Your task to perform on an android device: Open Amazon Image 0: 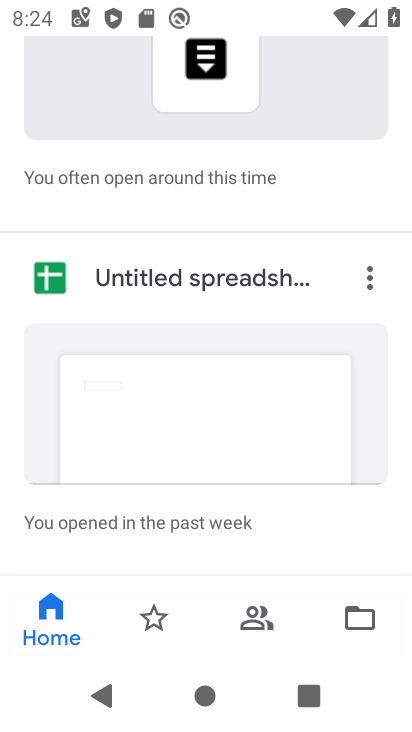
Step 0: press home button
Your task to perform on an android device: Open Amazon Image 1: 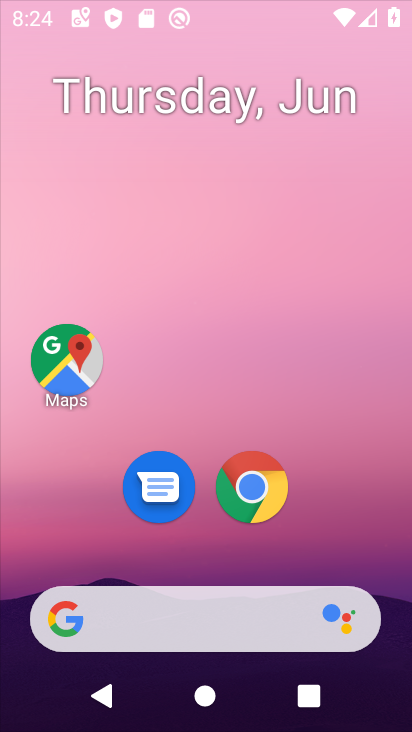
Step 1: drag from (280, 583) to (279, 88)
Your task to perform on an android device: Open Amazon Image 2: 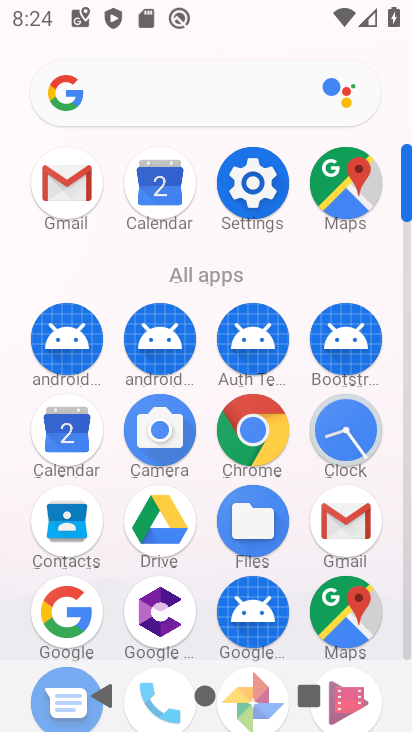
Step 2: click (252, 424)
Your task to perform on an android device: Open Amazon Image 3: 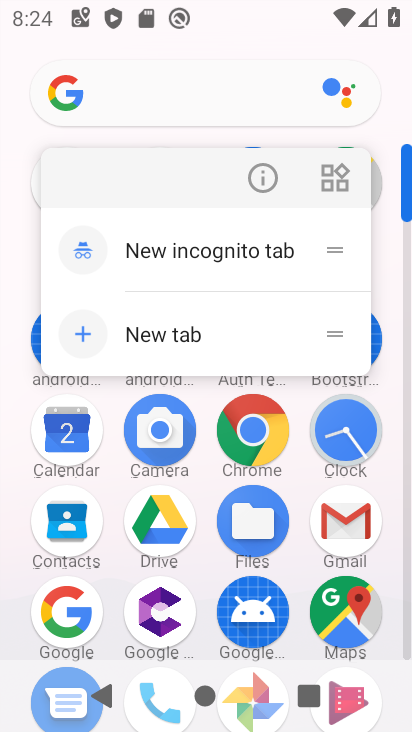
Step 3: click (252, 191)
Your task to perform on an android device: Open Amazon Image 4: 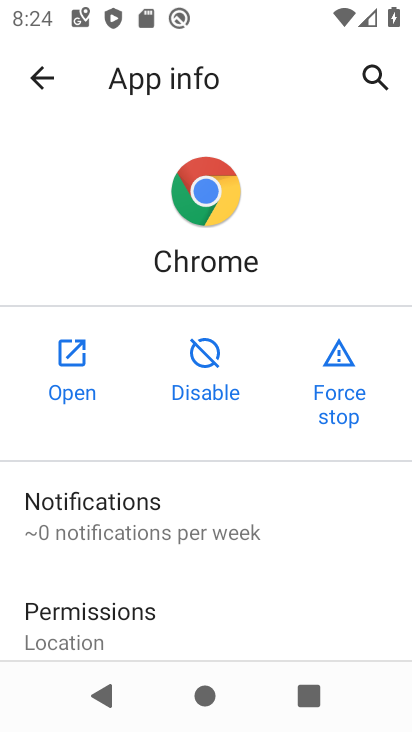
Step 4: click (55, 360)
Your task to perform on an android device: Open Amazon Image 5: 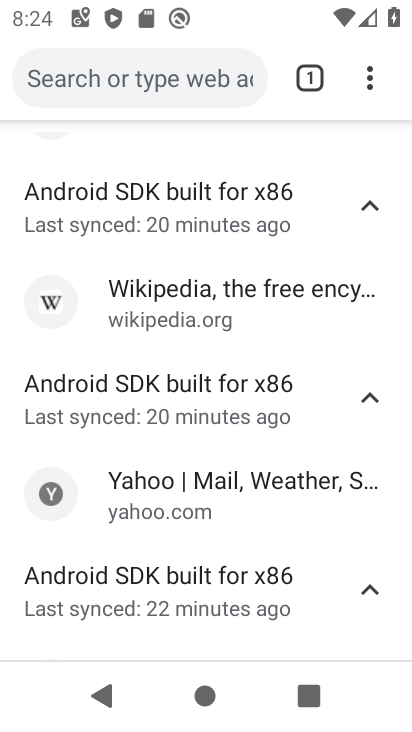
Step 5: drag from (303, 180) to (326, 716)
Your task to perform on an android device: Open Amazon Image 6: 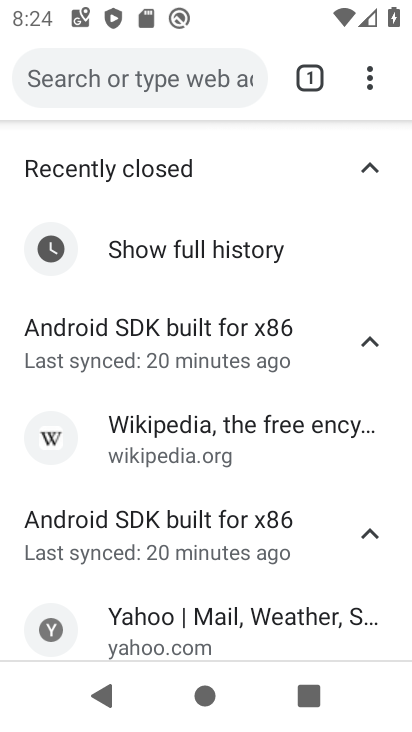
Step 6: click (315, 78)
Your task to perform on an android device: Open Amazon Image 7: 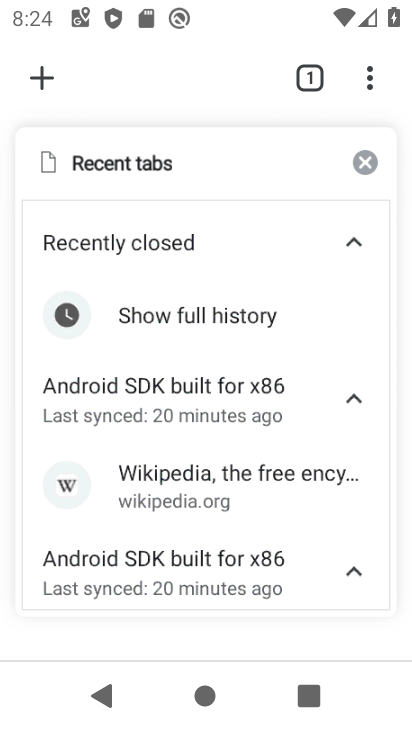
Step 7: click (366, 167)
Your task to perform on an android device: Open Amazon Image 8: 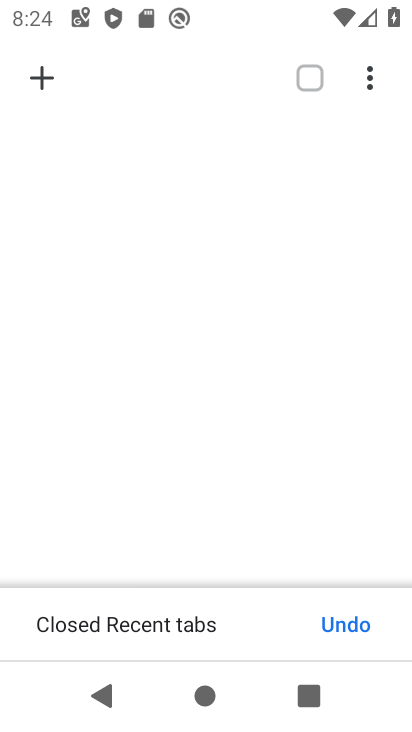
Step 8: click (32, 81)
Your task to perform on an android device: Open Amazon Image 9: 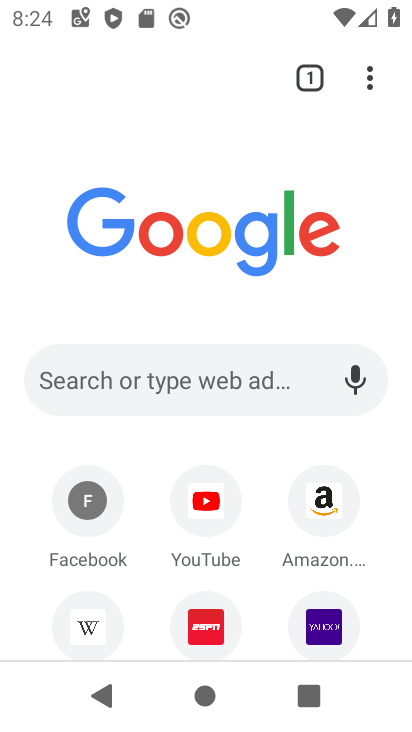
Step 9: click (321, 511)
Your task to perform on an android device: Open Amazon Image 10: 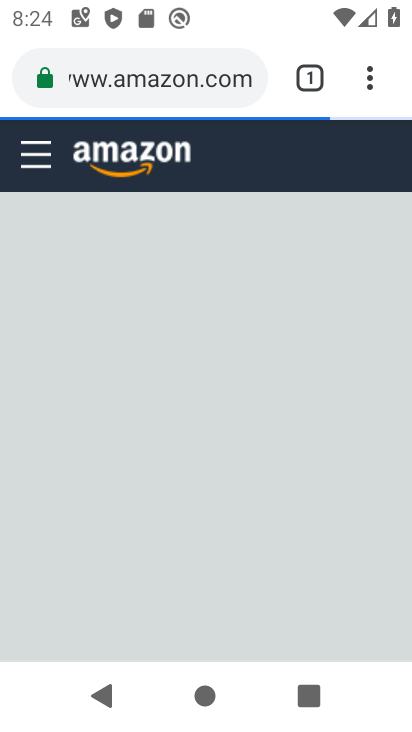
Step 10: task complete